Your task to perform on an android device: turn vacation reply on in the gmail app Image 0: 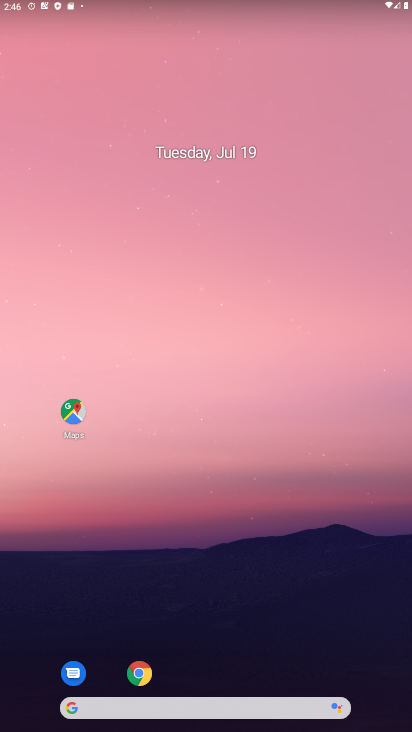
Step 0: drag from (217, 663) to (246, 6)
Your task to perform on an android device: turn vacation reply on in the gmail app Image 1: 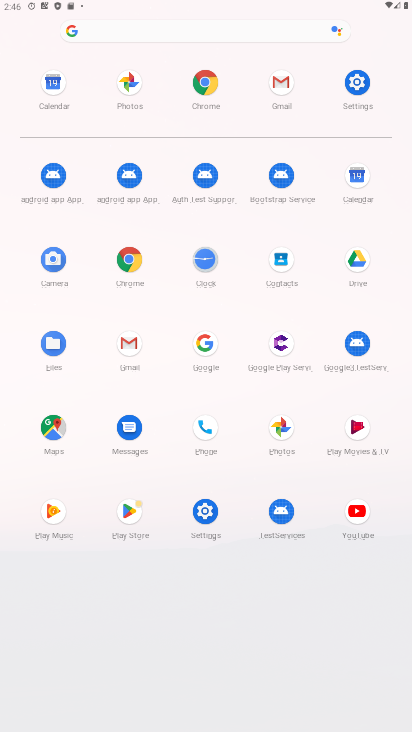
Step 1: click (123, 360)
Your task to perform on an android device: turn vacation reply on in the gmail app Image 2: 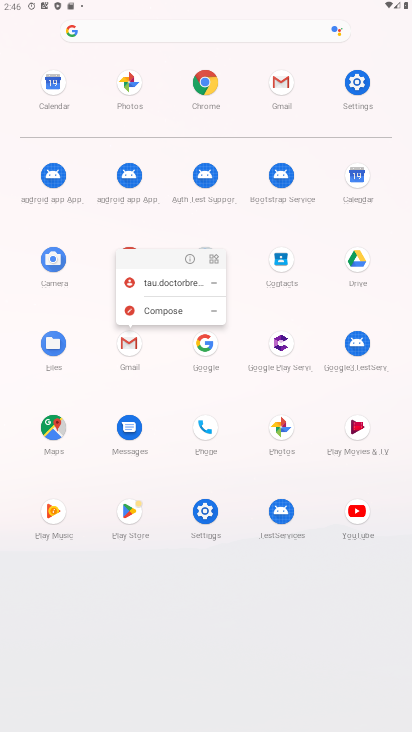
Step 2: click (131, 363)
Your task to perform on an android device: turn vacation reply on in the gmail app Image 3: 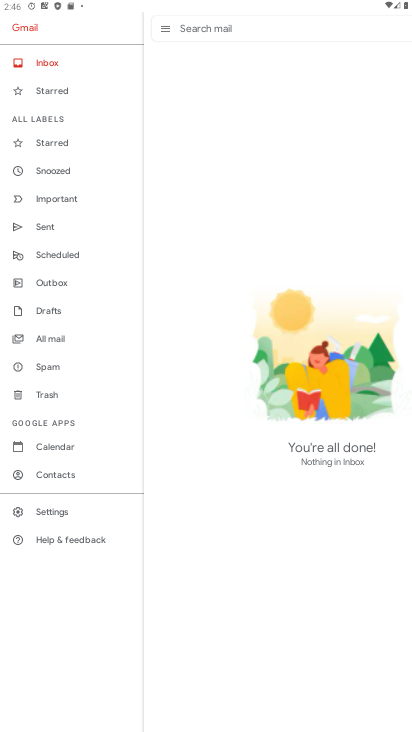
Step 3: click (61, 513)
Your task to perform on an android device: turn vacation reply on in the gmail app Image 4: 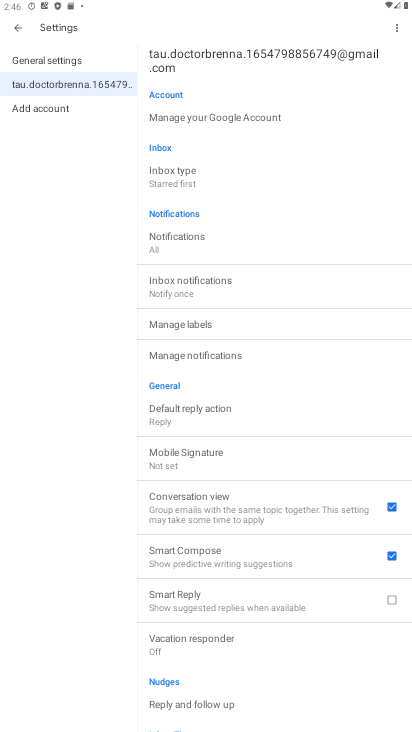
Step 4: click (222, 645)
Your task to perform on an android device: turn vacation reply on in the gmail app Image 5: 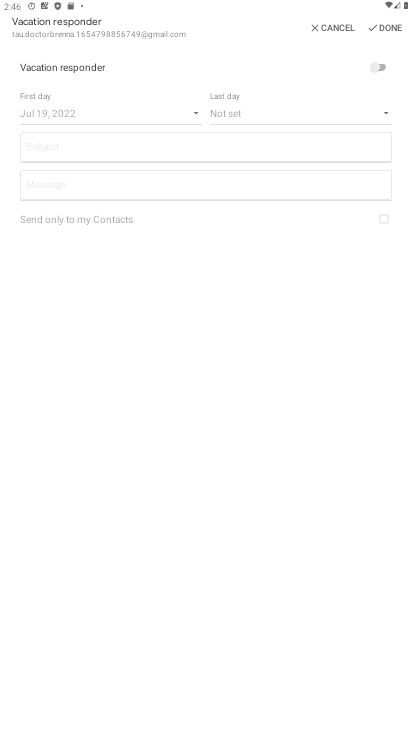
Step 5: click (391, 64)
Your task to perform on an android device: turn vacation reply on in the gmail app Image 6: 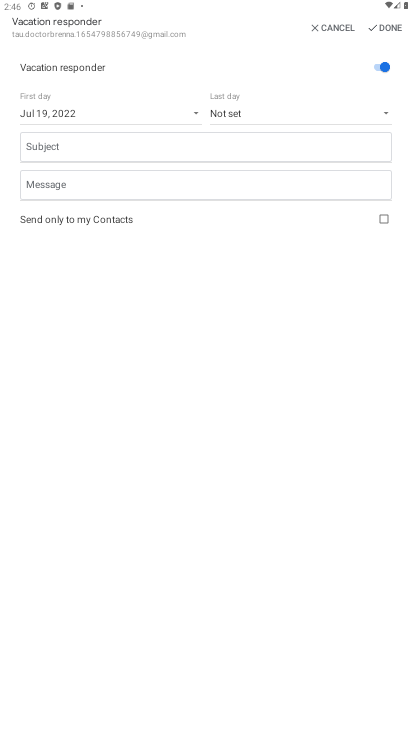
Step 6: click (64, 190)
Your task to perform on an android device: turn vacation reply on in the gmail app Image 7: 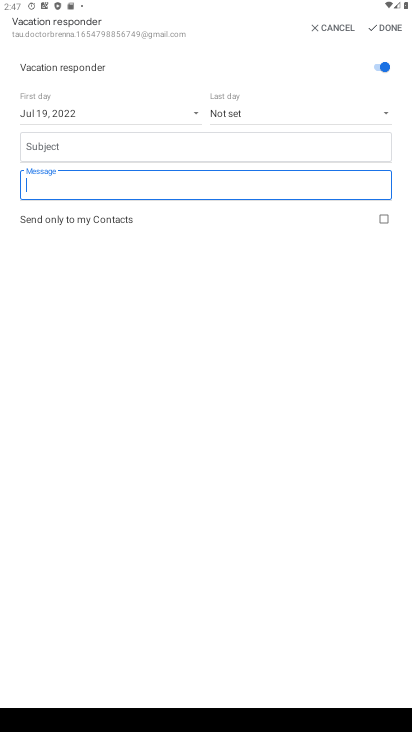
Step 7: type "Message"
Your task to perform on an android device: turn vacation reply on in the gmail app Image 8: 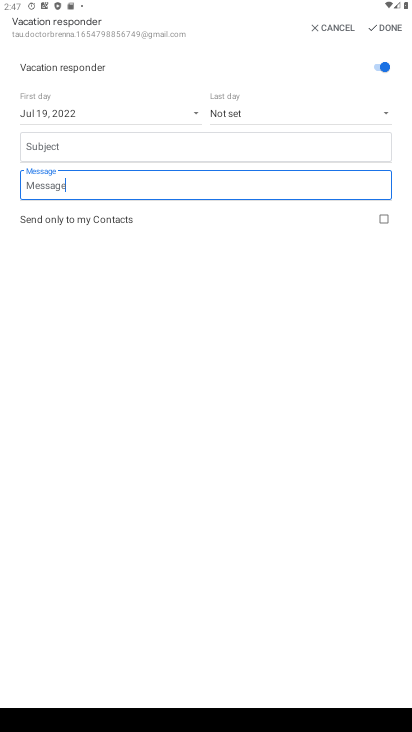
Step 8: click (383, 27)
Your task to perform on an android device: turn vacation reply on in the gmail app Image 9: 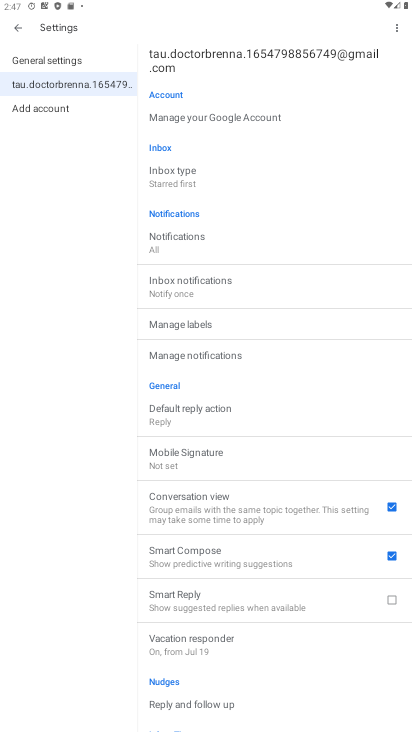
Step 9: task complete